Your task to perform on an android device: change timer sound Image 0: 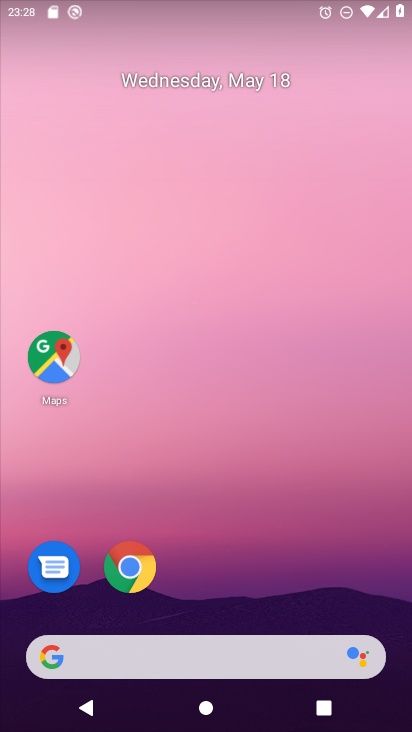
Step 0: drag from (258, 676) to (308, 281)
Your task to perform on an android device: change timer sound Image 1: 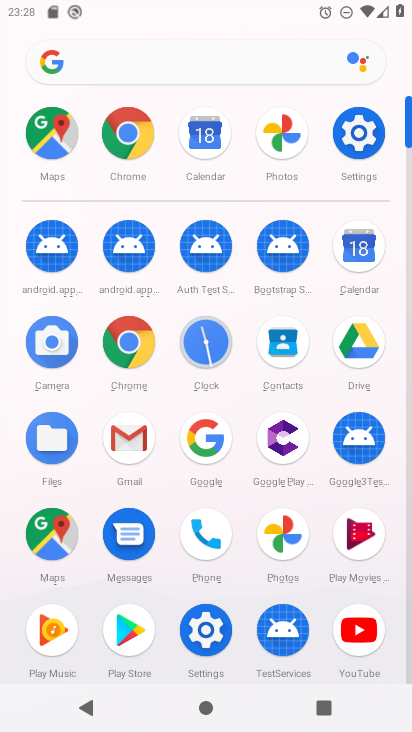
Step 1: click (199, 334)
Your task to perform on an android device: change timer sound Image 2: 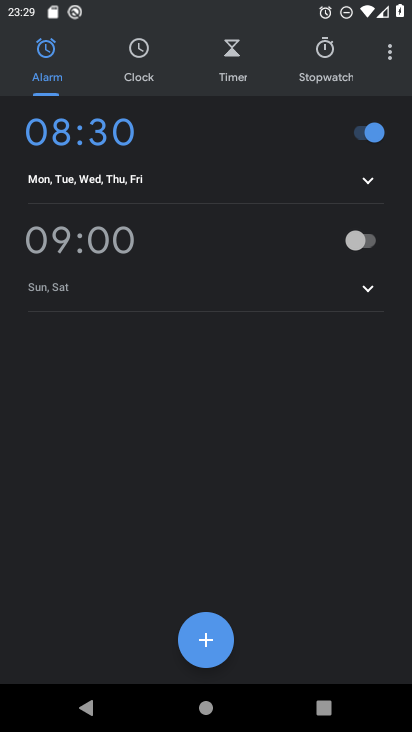
Step 2: click (381, 69)
Your task to perform on an android device: change timer sound Image 3: 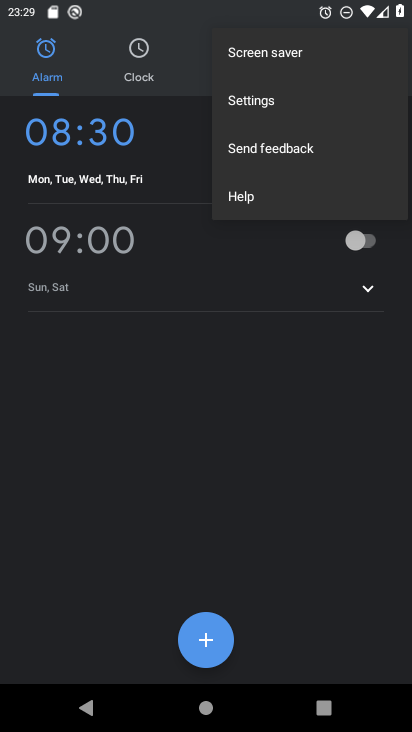
Step 3: click (281, 100)
Your task to perform on an android device: change timer sound Image 4: 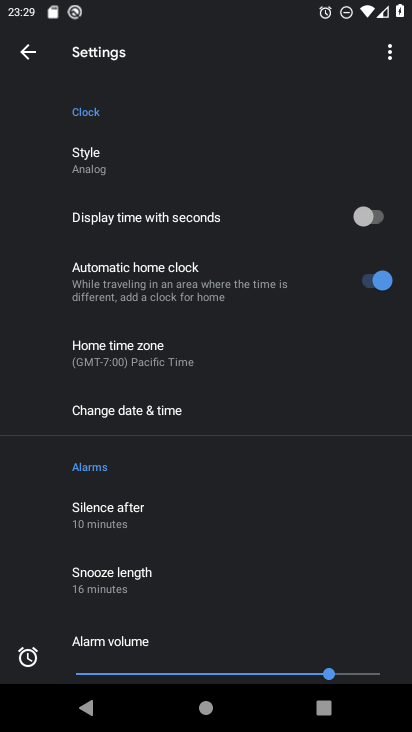
Step 4: drag from (217, 494) to (213, 170)
Your task to perform on an android device: change timer sound Image 5: 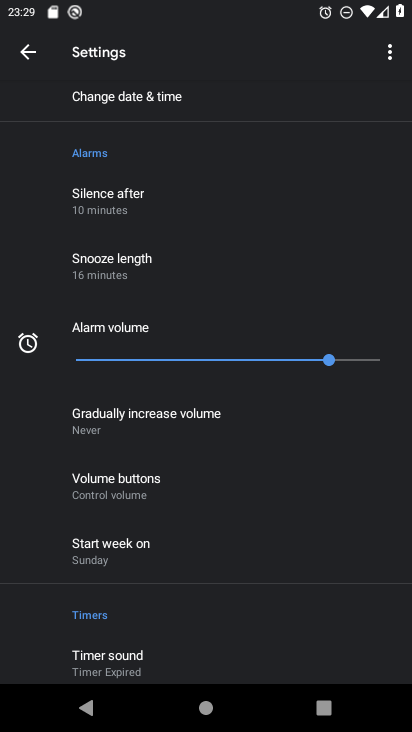
Step 5: click (141, 649)
Your task to perform on an android device: change timer sound Image 6: 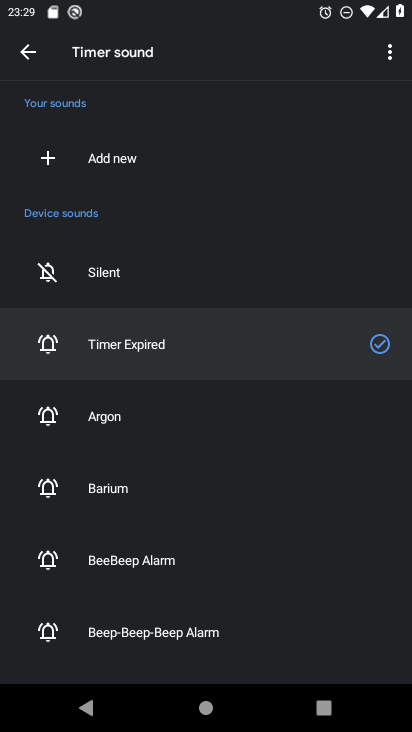
Step 6: click (116, 511)
Your task to perform on an android device: change timer sound Image 7: 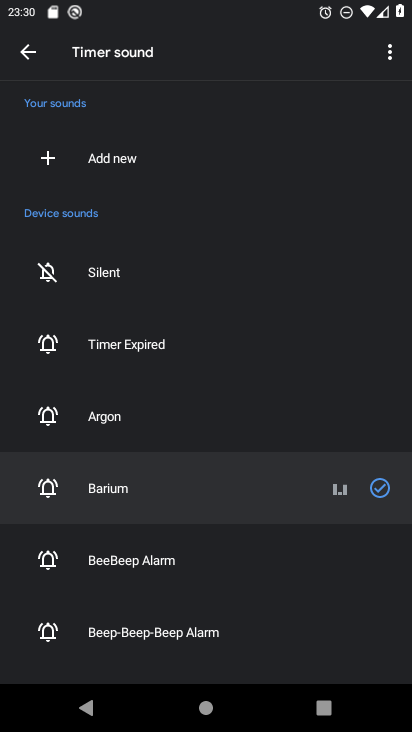
Step 7: task complete